Your task to perform on an android device: turn off javascript in the chrome app Image 0: 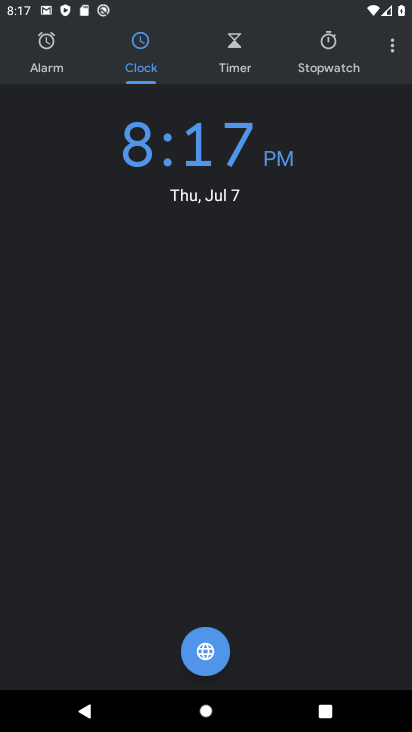
Step 0: drag from (352, 549) to (352, 495)
Your task to perform on an android device: turn off javascript in the chrome app Image 1: 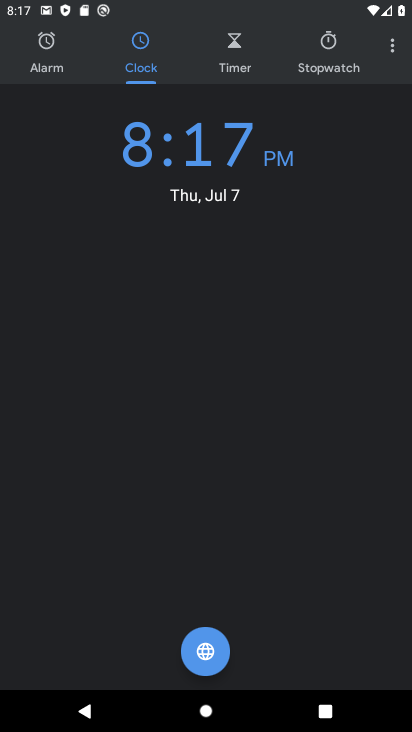
Step 1: press home button
Your task to perform on an android device: turn off javascript in the chrome app Image 2: 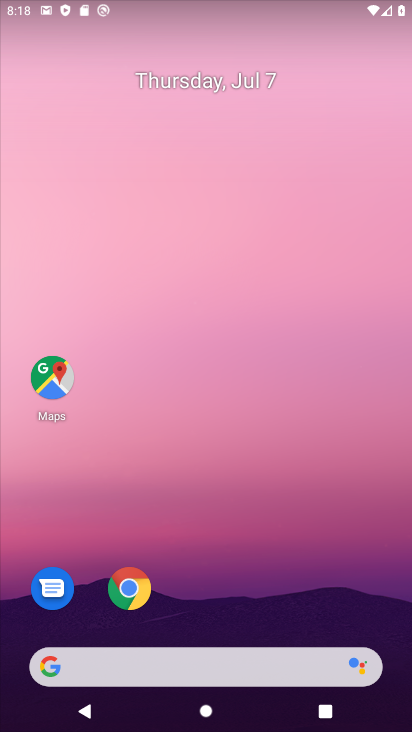
Step 2: click (126, 592)
Your task to perform on an android device: turn off javascript in the chrome app Image 3: 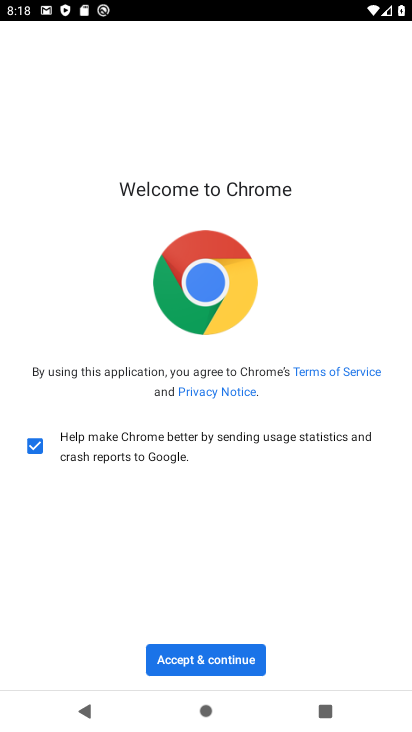
Step 3: click (220, 651)
Your task to perform on an android device: turn off javascript in the chrome app Image 4: 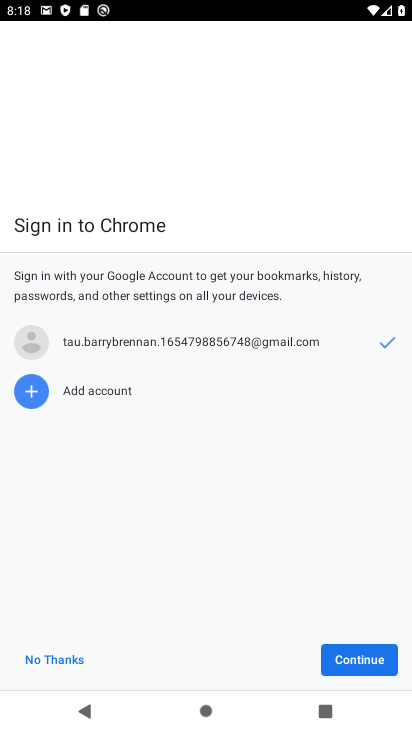
Step 4: click (362, 657)
Your task to perform on an android device: turn off javascript in the chrome app Image 5: 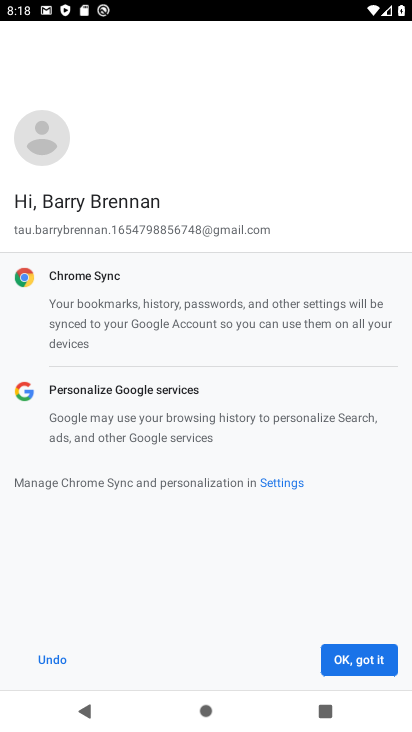
Step 5: click (362, 657)
Your task to perform on an android device: turn off javascript in the chrome app Image 6: 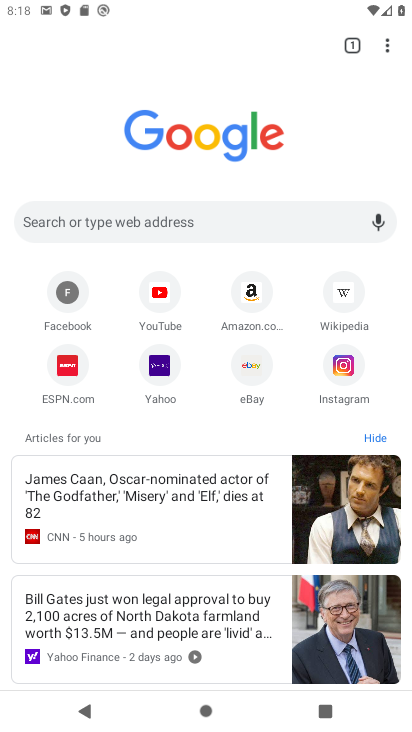
Step 6: click (393, 46)
Your task to perform on an android device: turn off javascript in the chrome app Image 7: 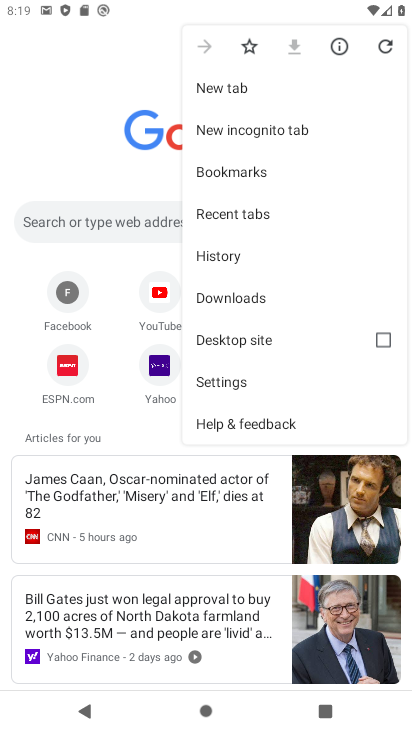
Step 7: click (238, 387)
Your task to perform on an android device: turn off javascript in the chrome app Image 8: 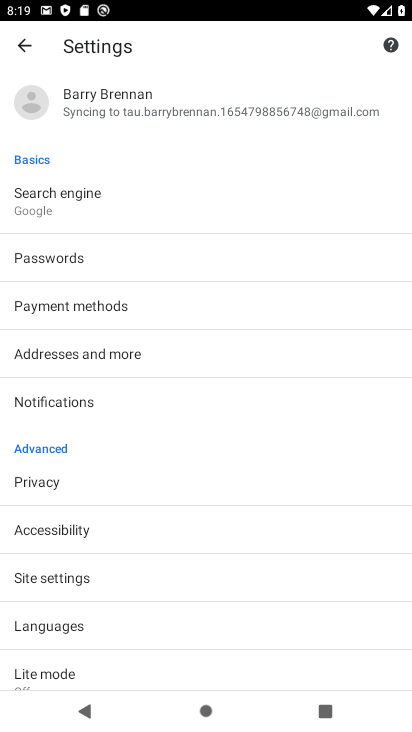
Step 8: click (168, 578)
Your task to perform on an android device: turn off javascript in the chrome app Image 9: 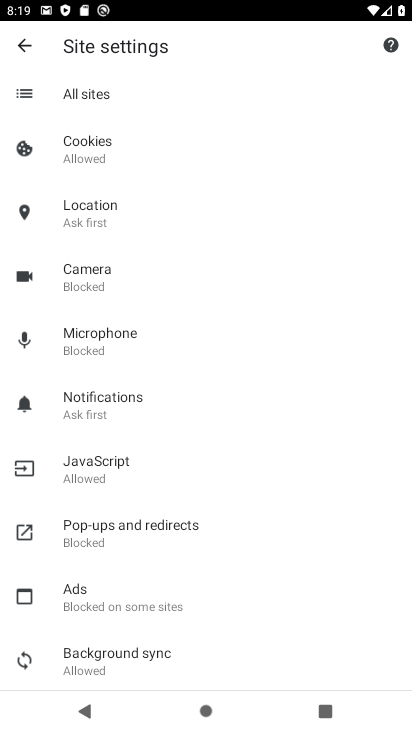
Step 9: click (185, 473)
Your task to perform on an android device: turn off javascript in the chrome app Image 10: 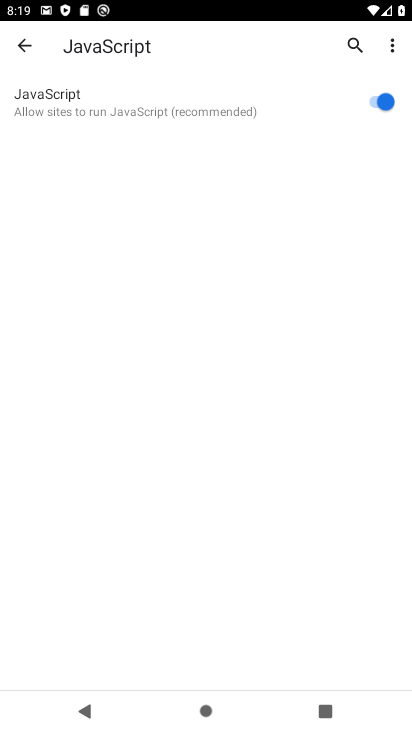
Step 10: click (373, 107)
Your task to perform on an android device: turn off javascript in the chrome app Image 11: 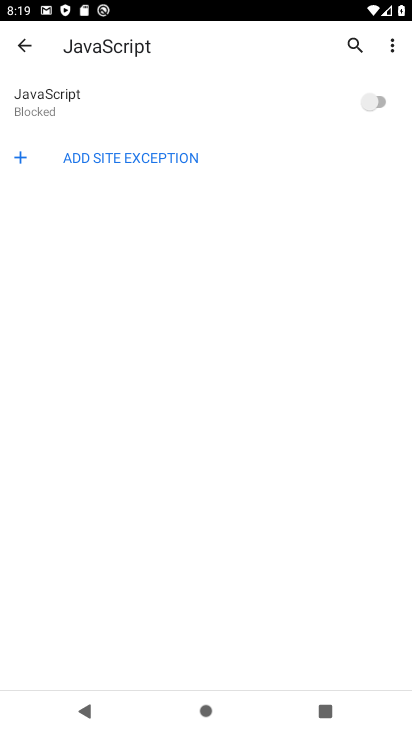
Step 11: task complete